Your task to perform on an android device: manage bookmarks in the chrome app Image 0: 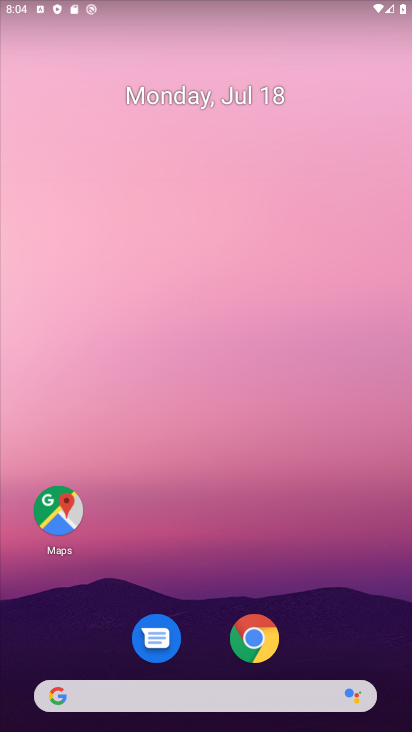
Step 0: press home button
Your task to perform on an android device: manage bookmarks in the chrome app Image 1: 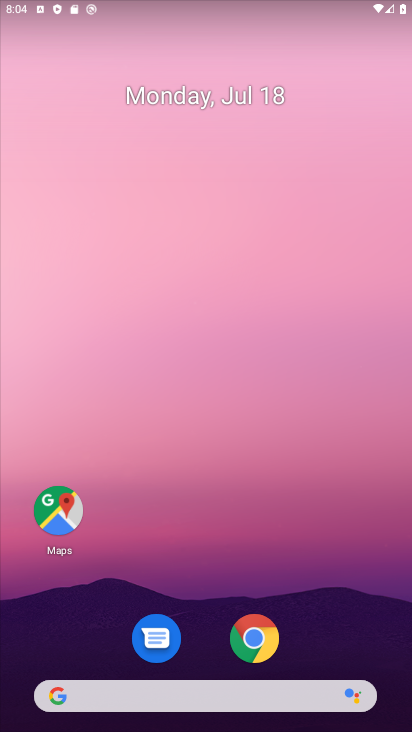
Step 1: click (252, 637)
Your task to perform on an android device: manage bookmarks in the chrome app Image 2: 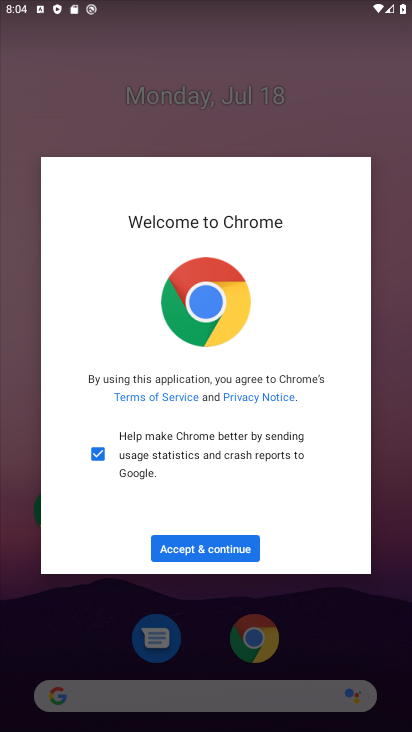
Step 2: click (196, 538)
Your task to perform on an android device: manage bookmarks in the chrome app Image 3: 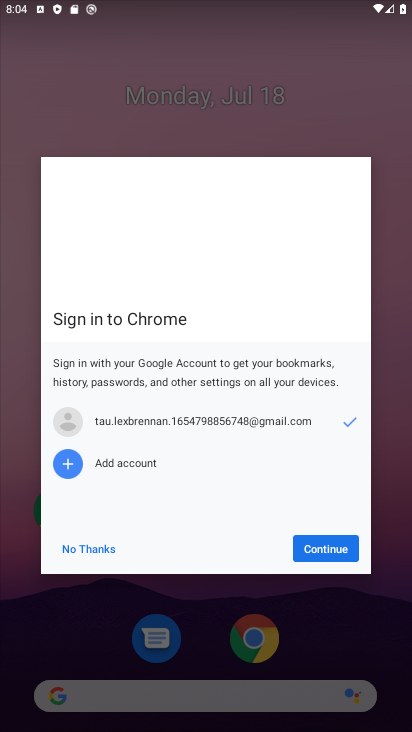
Step 3: click (331, 544)
Your task to perform on an android device: manage bookmarks in the chrome app Image 4: 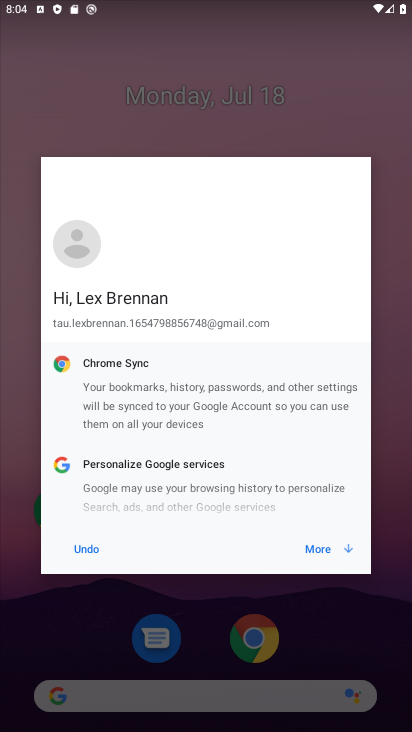
Step 4: click (324, 555)
Your task to perform on an android device: manage bookmarks in the chrome app Image 5: 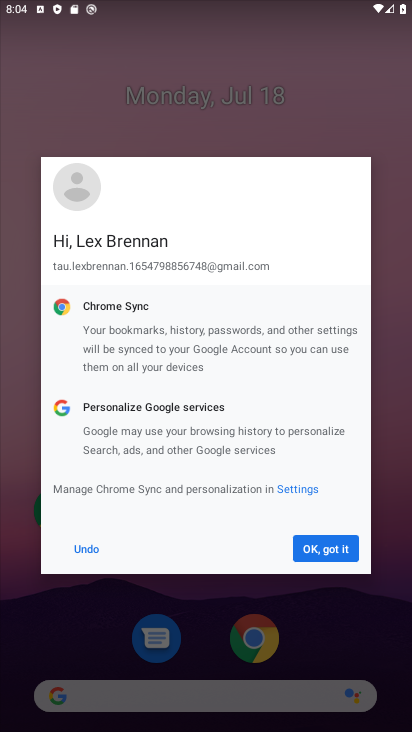
Step 5: click (324, 548)
Your task to perform on an android device: manage bookmarks in the chrome app Image 6: 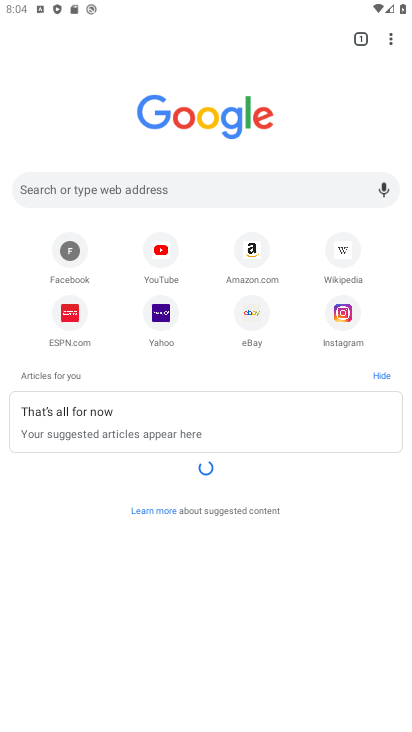
Step 6: click (393, 38)
Your task to perform on an android device: manage bookmarks in the chrome app Image 7: 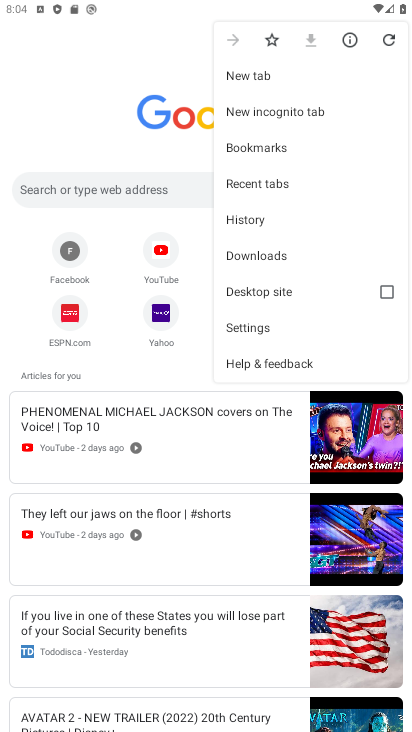
Step 7: click (274, 148)
Your task to perform on an android device: manage bookmarks in the chrome app Image 8: 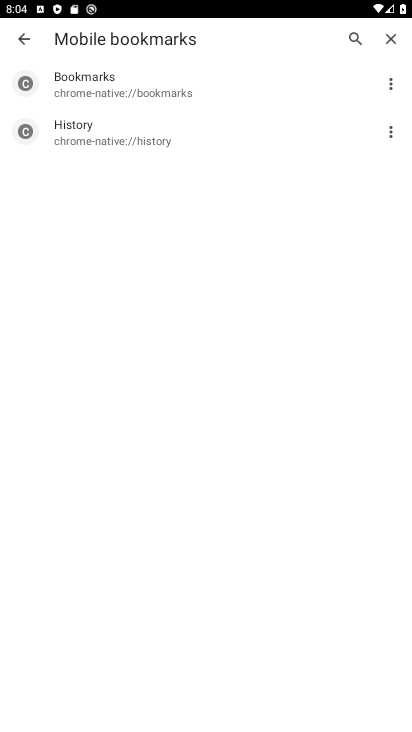
Step 8: click (388, 138)
Your task to perform on an android device: manage bookmarks in the chrome app Image 9: 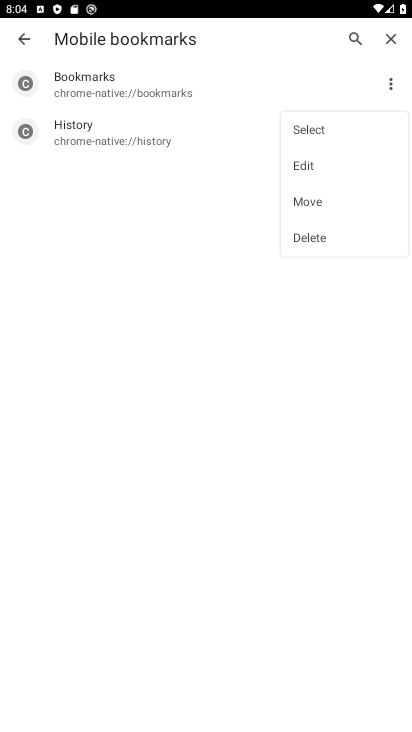
Step 9: click (316, 234)
Your task to perform on an android device: manage bookmarks in the chrome app Image 10: 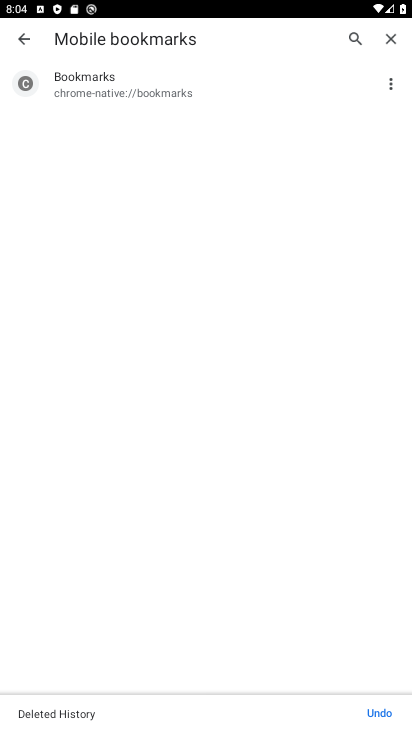
Step 10: task complete